Your task to perform on an android device: Open Youtube and go to the subscriptions tab Image 0: 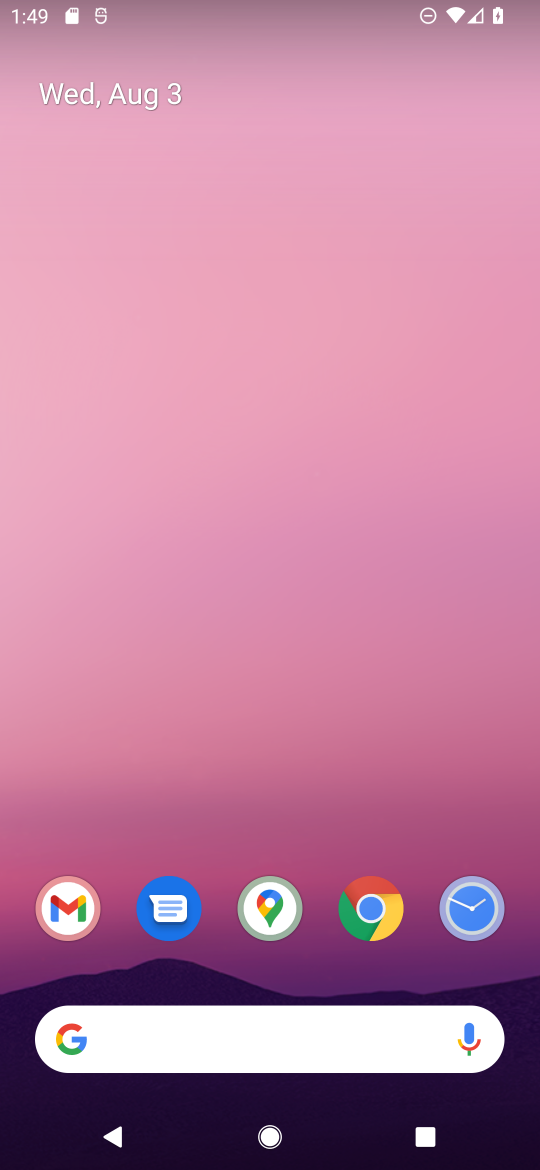
Step 0: drag from (256, 844) to (289, 25)
Your task to perform on an android device: Open Youtube and go to the subscriptions tab Image 1: 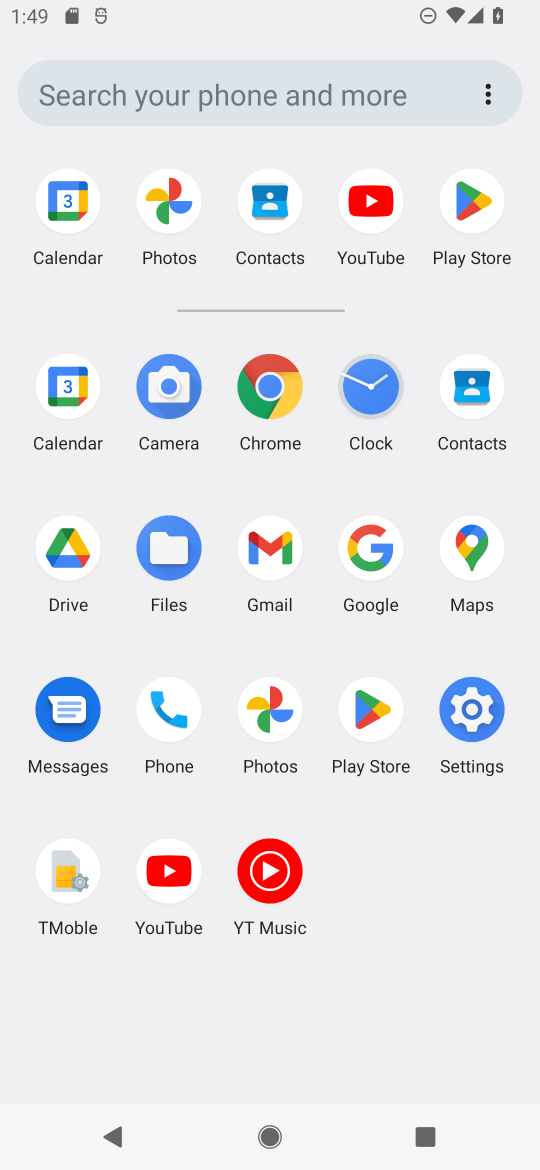
Step 1: click (167, 869)
Your task to perform on an android device: Open Youtube and go to the subscriptions tab Image 2: 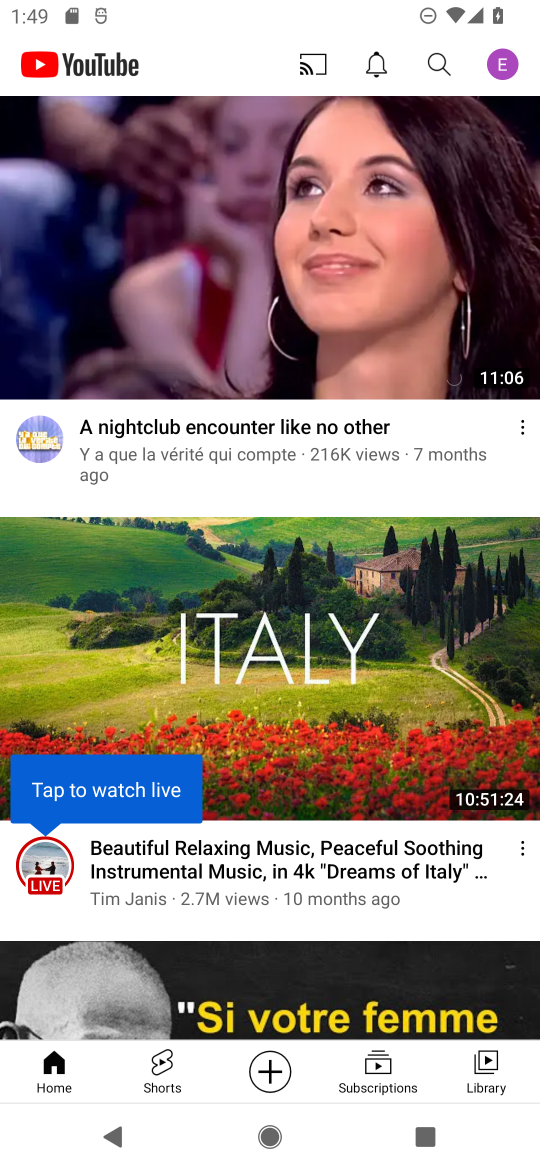
Step 2: click (414, 1076)
Your task to perform on an android device: Open Youtube and go to the subscriptions tab Image 3: 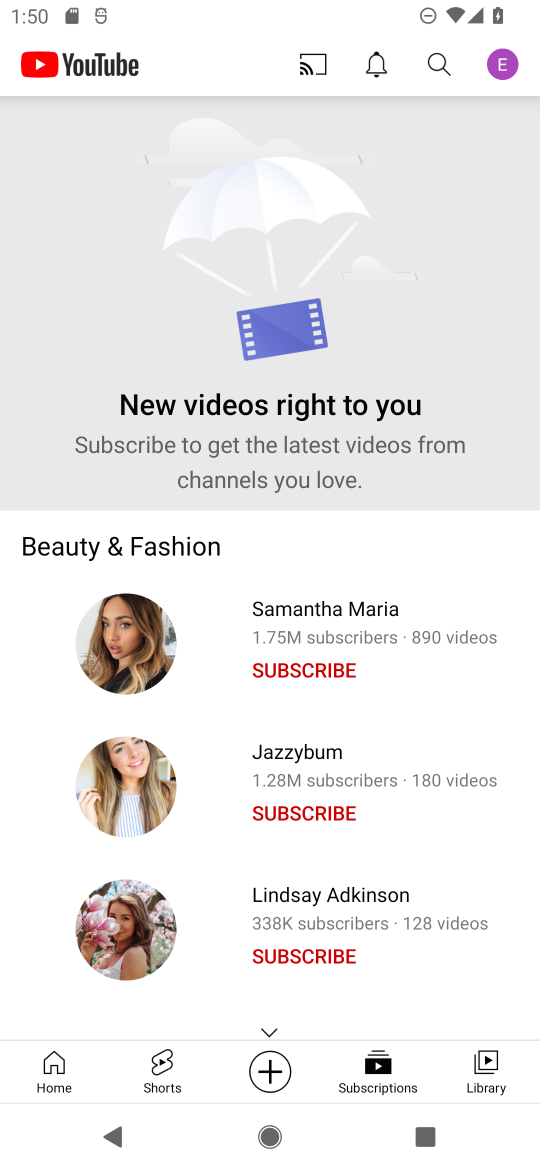
Step 3: task complete